Your task to perform on an android device: clear all cookies in the chrome app Image 0: 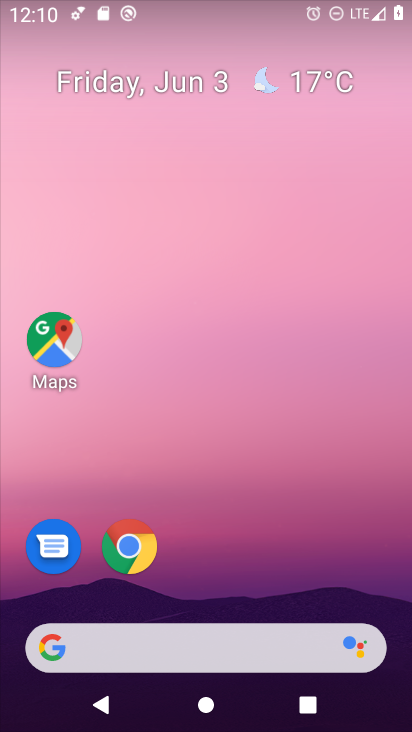
Step 0: drag from (282, 299) to (276, 31)
Your task to perform on an android device: clear all cookies in the chrome app Image 1: 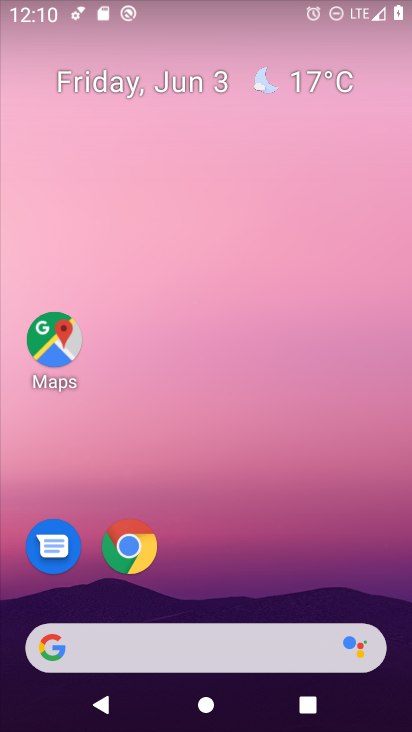
Step 1: drag from (225, 319) to (212, 19)
Your task to perform on an android device: clear all cookies in the chrome app Image 2: 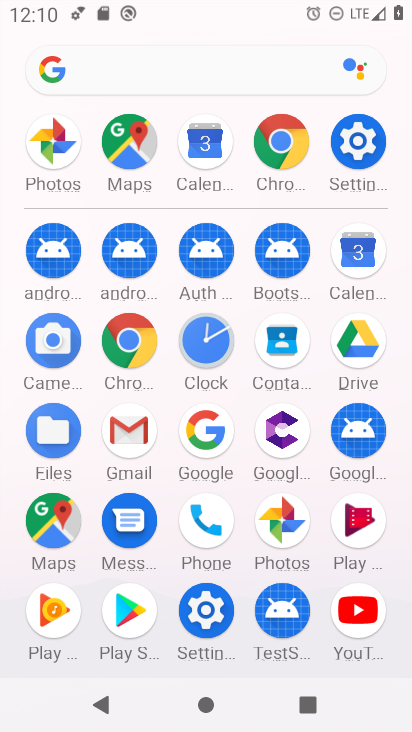
Step 2: click (280, 142)
Your task to perform on an android device: clear all cookies in the chrome app Image 3: 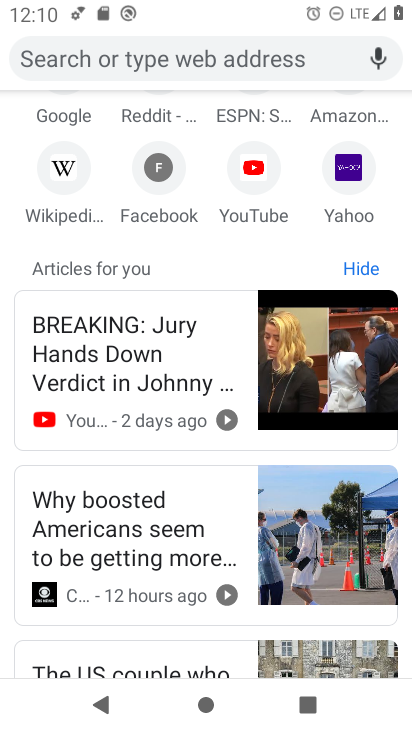
Step 3: drag from (209, 195) to (205, 494)
Your task to perform on an android device: clear all cookies in the chrome app Image 4: 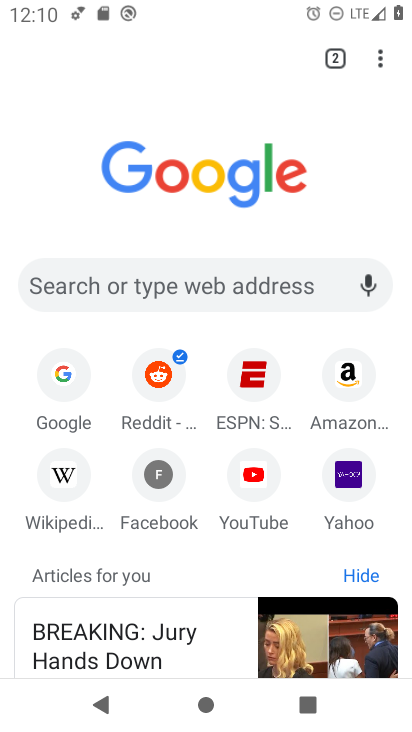
Step 4: drag from (378, 49) to (212, 490)
Your task to perform on an android device: clear all cookies in the chrome app Image 5: 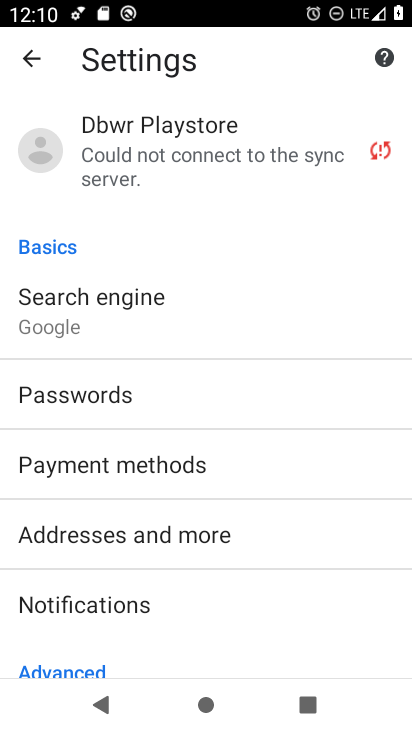
Step 5: drag from (249, 610) to (242, 234)
Your task to perform on an android device: clear all cookies in the chrome app Image 6: 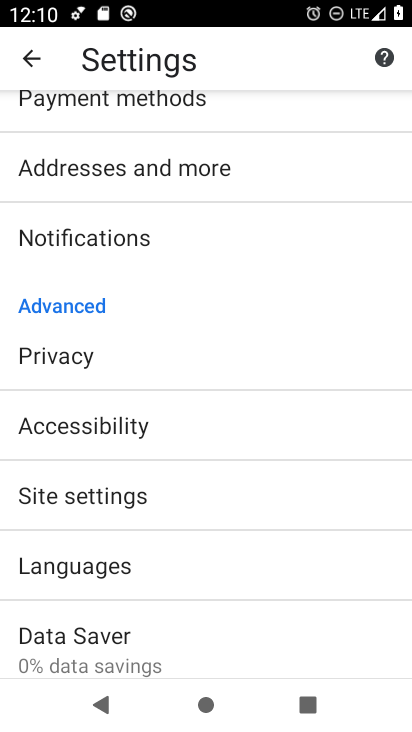
Step 6: drag from (221, 566) to (246, 209)
Your task to perform on an android device: clear all cookies in the chrome app Image 7: 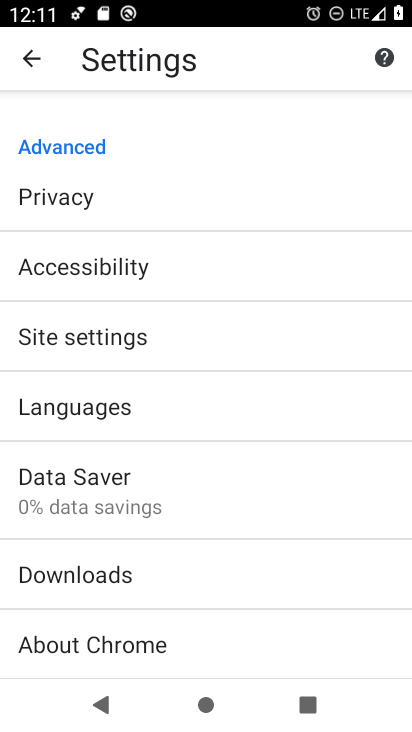
Step 7: drag from (265, 531) to (258, 144)
Your task to perform on an android device: clear all cookies in the chrome app Image 8: 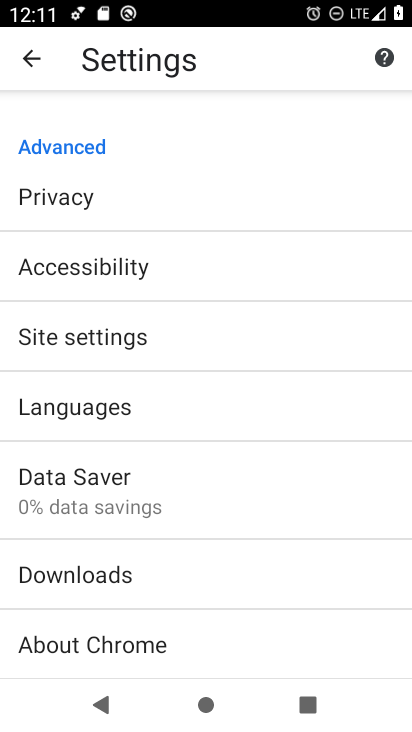
Step 8: drag from (257, 546) to (275, 195)
Your task to perform on an android device: clear all cookies in the chrome app Image 9: 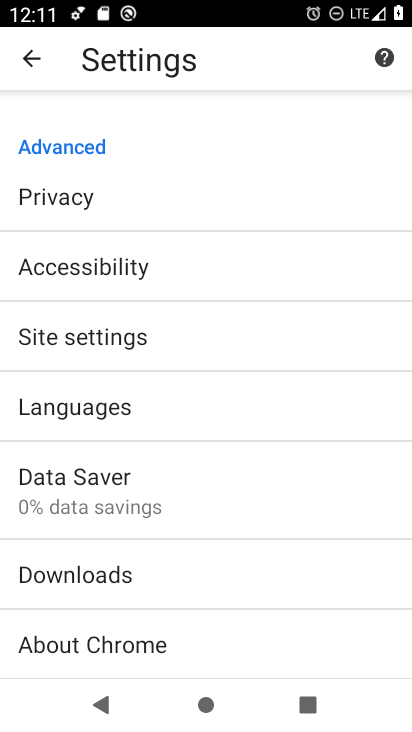
Step 9: drag from (184, 636) to (246, 291)
Your task to perform on an android device: clear all cookies in the chrome app Image 10: 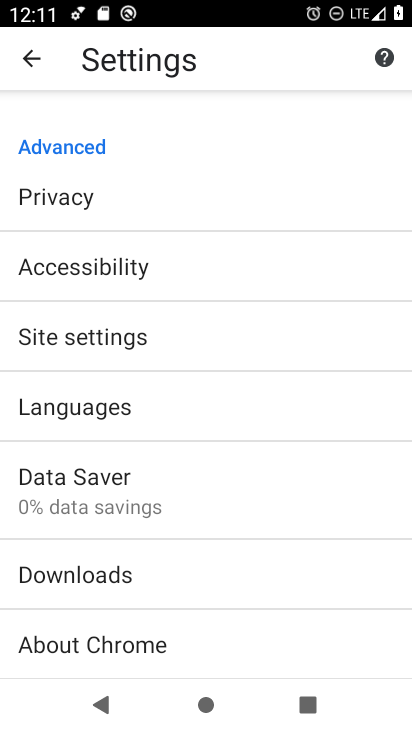
Step 10: click (174, 208)
Your task to perform on an android device: clear all cookies in the chrome app Image 11: 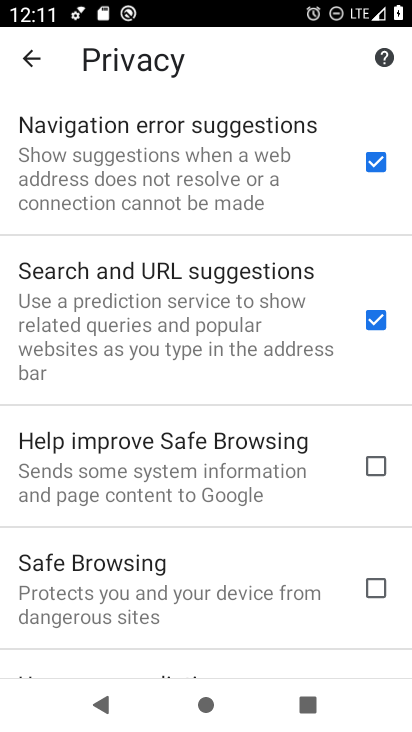
Step 11: drag from (158, 526) to (183, 119)
Your task to perform on an android device: clear all cookies in the chrome app Image 12: 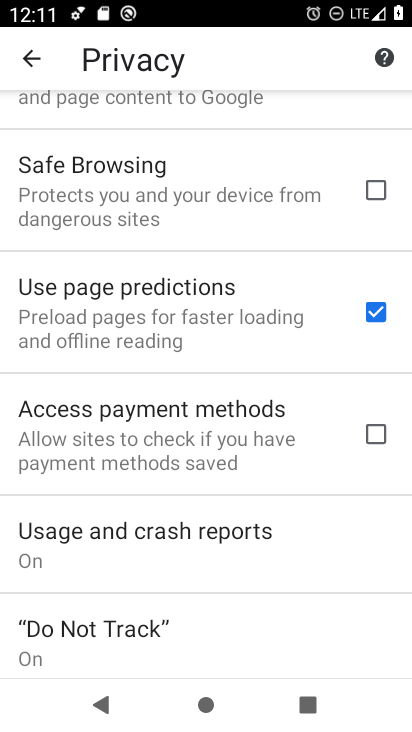
Step 12: drag from (214, 463) to (256, 244)
Your task to perform on an android device: clear all cookies in the chrome app Image 13: 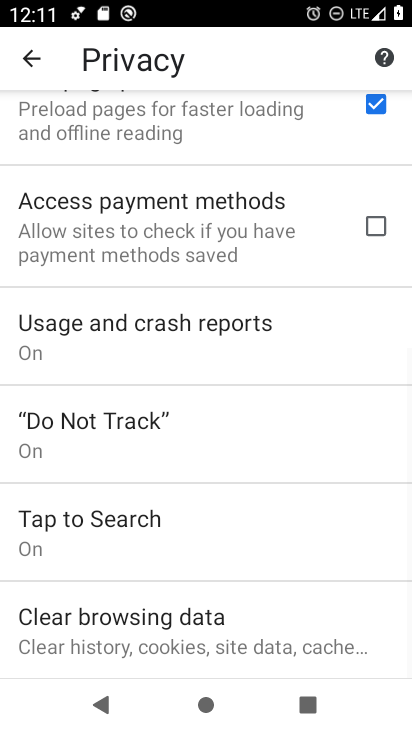
Step 13: drag from (188, 609) to (212, 216)
Your task to perform on an android device: clear all cookies in the chrome app Image 14: 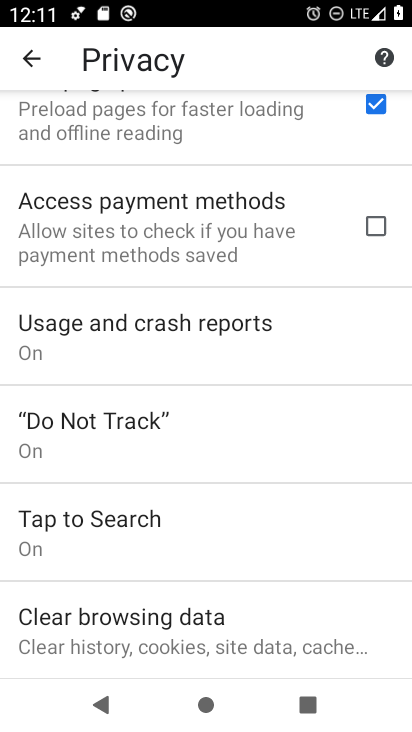
Step 14: drag from (169, 645) to (234, 181)
Your task to perform on an android device: clear all cookies in the chrome app Image 15: 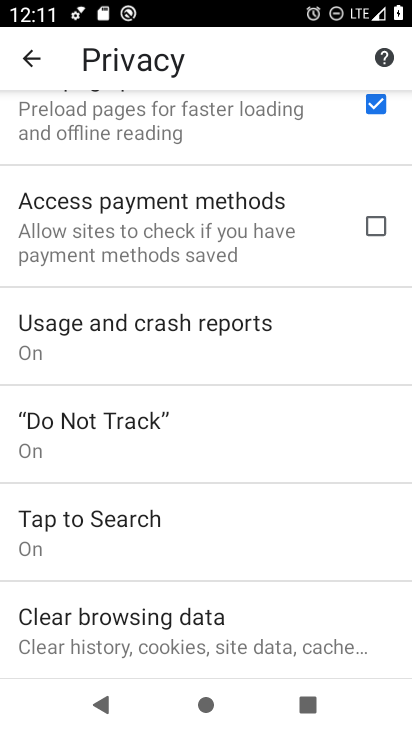
Step 15: click (136, 634)
Your task to perform on an android device: clear all cookies in the chrome app Image 16: 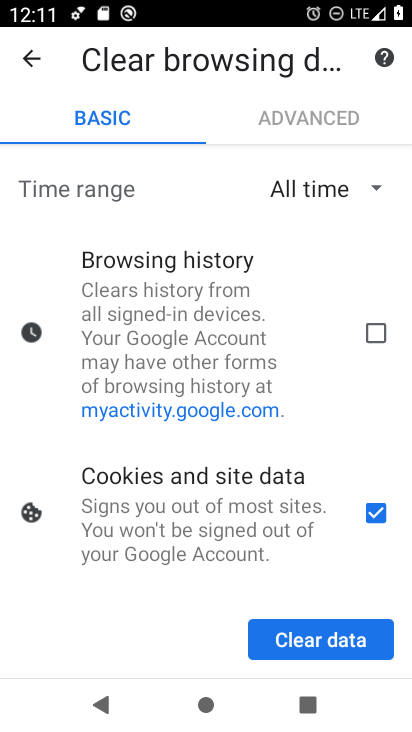
Step 16: click (320, 640)
Your task to perform on an android device: clear all cookies in the chrome app Image 17: 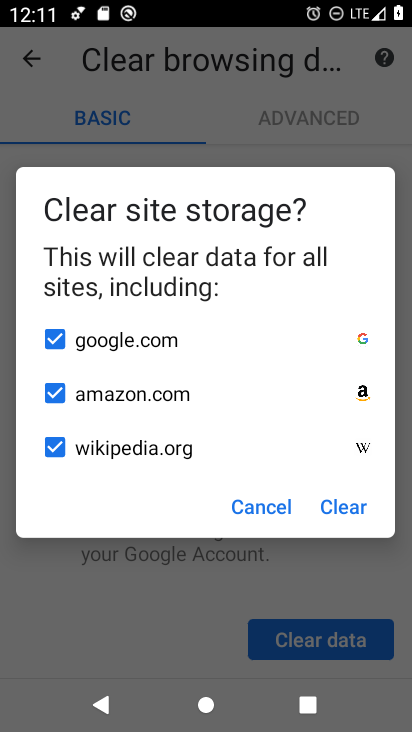
Step 17: click (332, 512)
Your task to perform on an android device: clear all cookies in the chrome app Image 18: 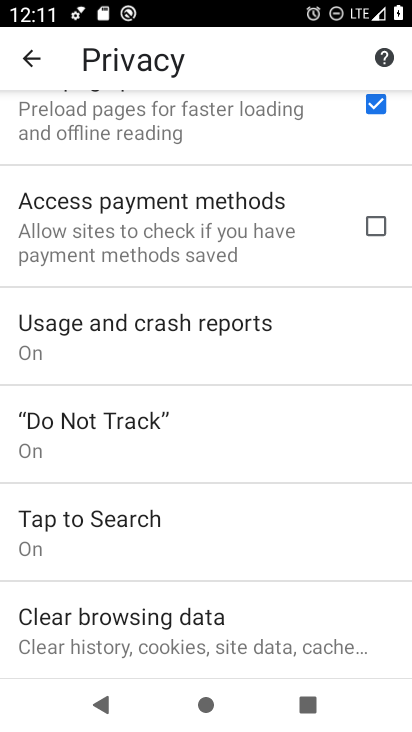
Step 18: task complete